Your task to perform on an android device: visit the assistant section in the google photos Image 0: 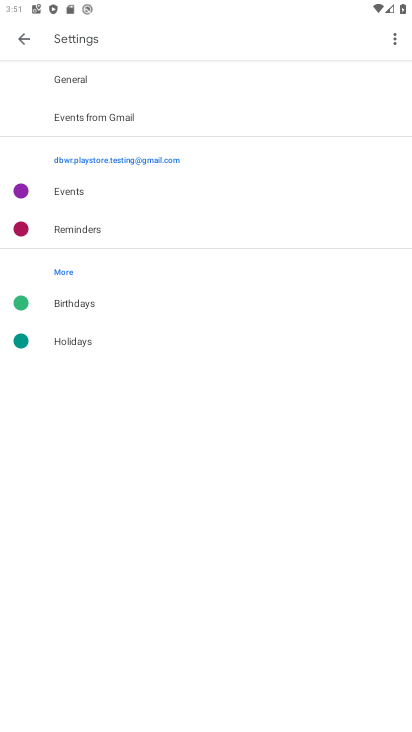
Step 0: press home button
Your task to perform on an android device: visit the assistant section in the google photos Image 1: 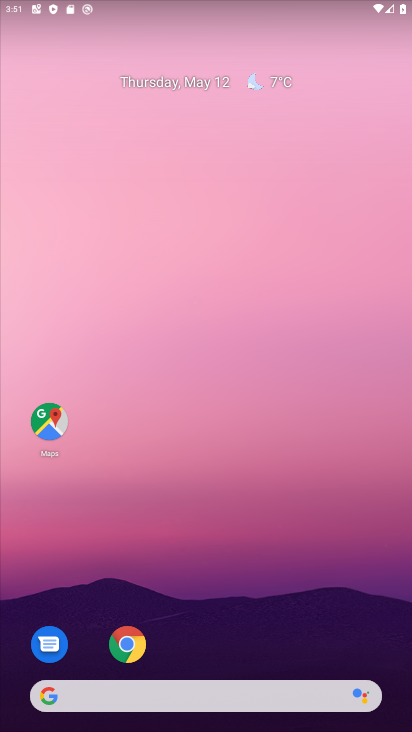
Step 1: drag from (209, 671) to (253, 65)
Your task to perform on an android device: visit the assistant section in the google photos Image 2: 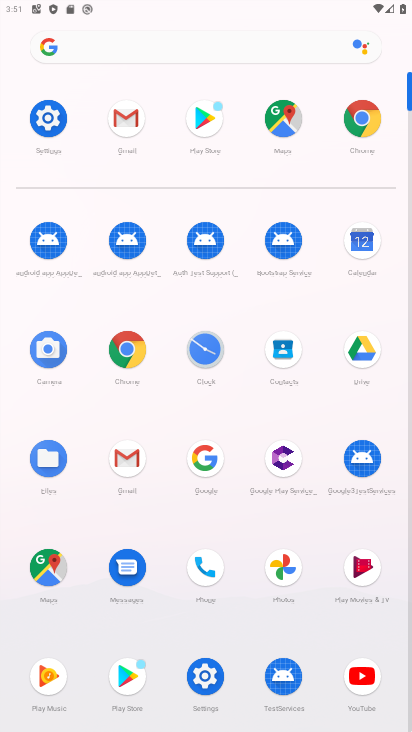
Step 2: click (283, 561)
Your task to perform on an android device: visit the assistant section in the google photos Image 3: 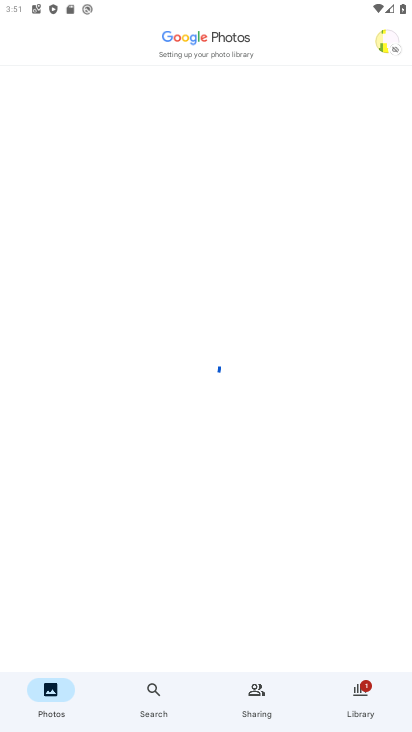
Step 3: click (356, 703)
Your task to perform on an android device: visit the assistant section in the google photos Image 4: 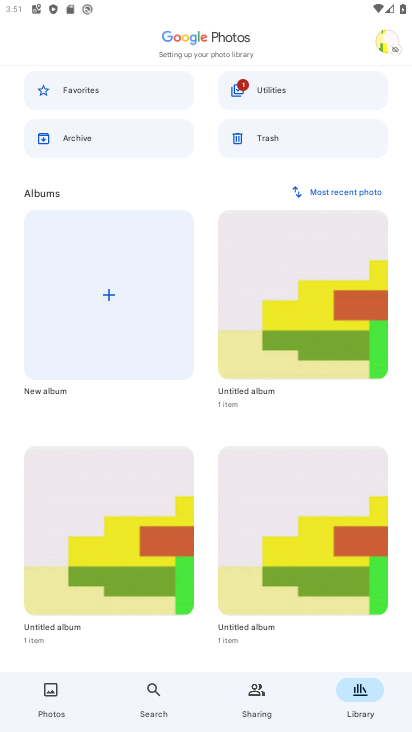
Step 4: drag from (205, 614) to (246, 304)
Your task to perform on an android device: visit the assistant section in the google photos Image 5: 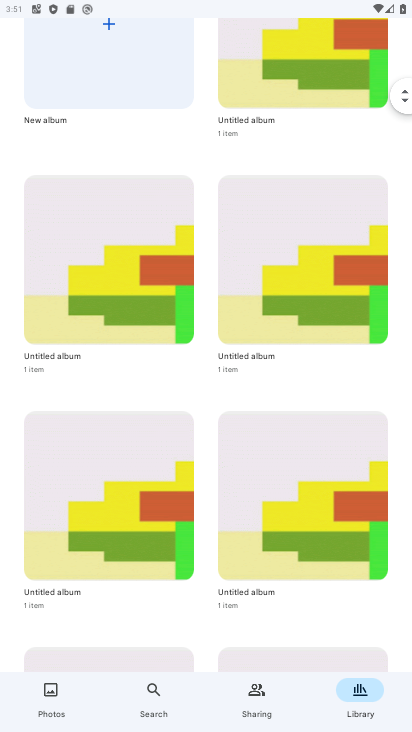
Step 5: drag from (247, 214) to (247, 168)
Your task to perform on an android device: visit the assistant section in the google photos Image 6: 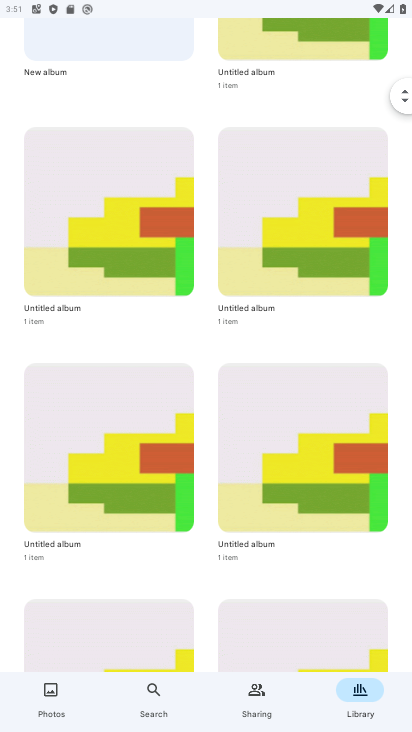
Step 6: drag from (210, 630) to (251, 73)
Your task to perform on an android device: visit the assistant section in the google photos Image 7: 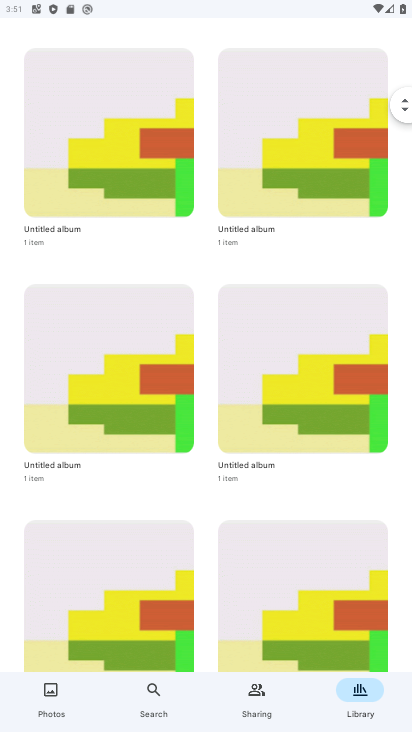
Step 7: drag from (207, 640) to (220, 62)
Your task to perform on an android device: visit the assistant section in the google photos Image 8: 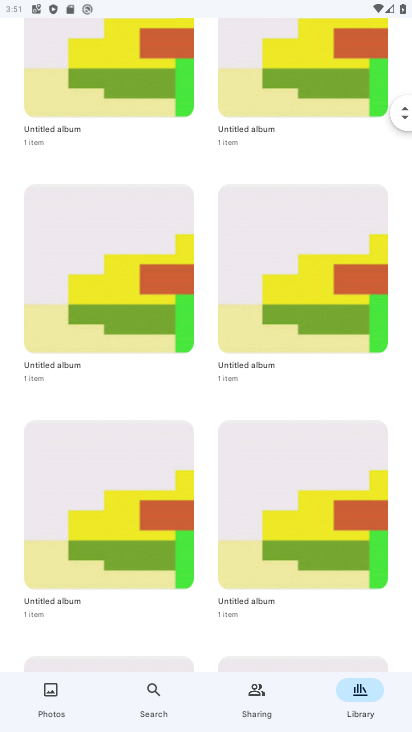
Step 8: drag from (398, 116) to (411, 202)
Your task to perform on an android device: visit the assistant section in the google photos Image 9: 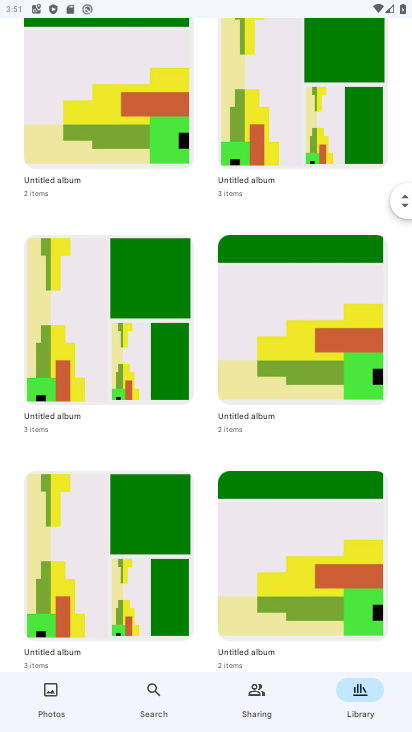
Step 9: click (409, 132)
Your task to perform on an android device: visit the assistant section in the google photos Image 10: 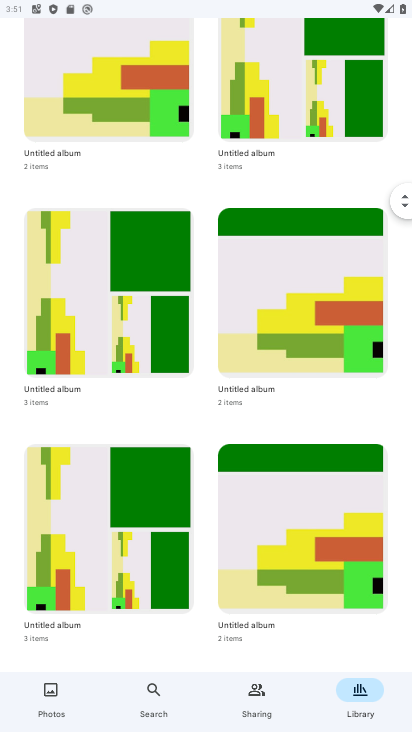
Step 10: click (395, 71)
Your task to perform on an android device: visit the assistant section in the google photos Image 11: 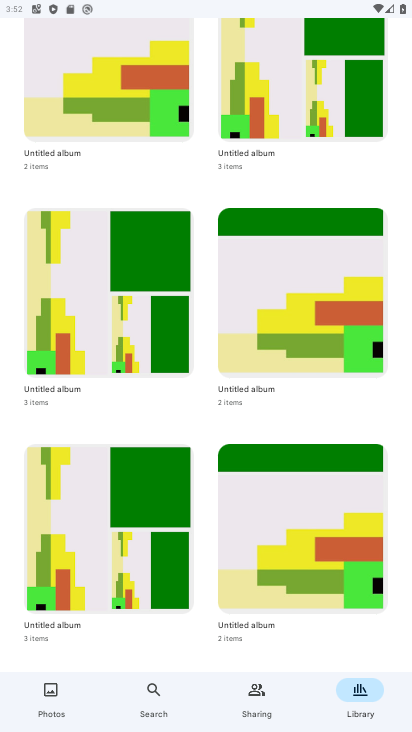
Step 11: drag from (282, 186) to (275, 560)
Your task to perform on an android device: visit the assistant section in the google photos Image 12: 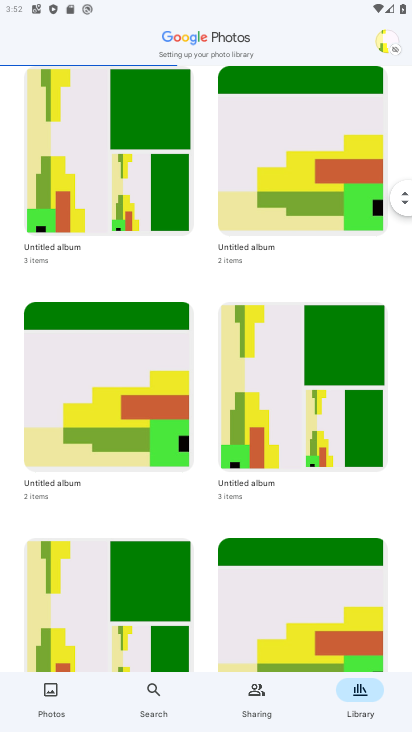
Step 12: drag from (404, 199) to (404, 25)
Your task to perform on an android device: visit the assistant section in the google photos Image 13: 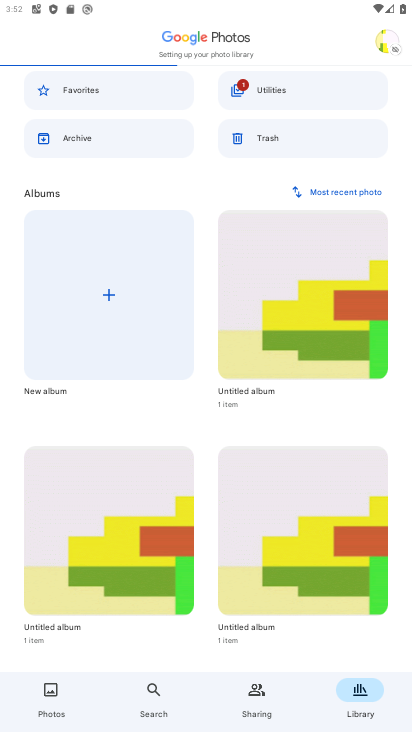
Step 13: drag from (204, 190) to (198, 541)
Your task to perform on an android device: visit the assistant section in the google photos Image 14: 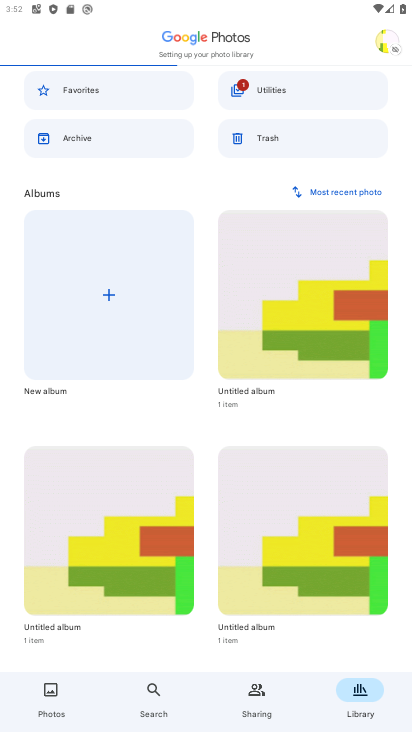
Step 14: click (148, 695)
Your task to perform on an android device: visit the assistant section in the google photos Image 15: 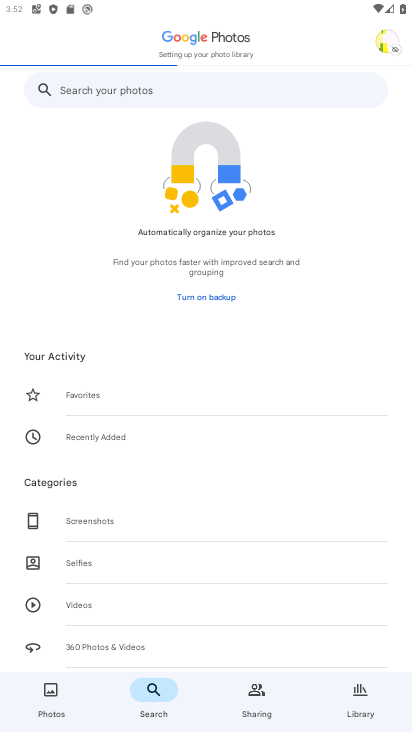
Step 15: task complete